Your task to perform on an android device: search for starred emails in the gmail app Image 0: 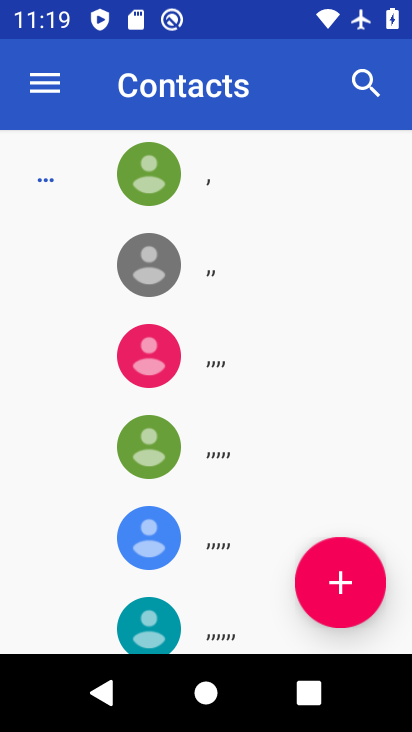
Step 0: press home button
Your task to perform on an android device: search for starred emails in the gmail app Image 1: 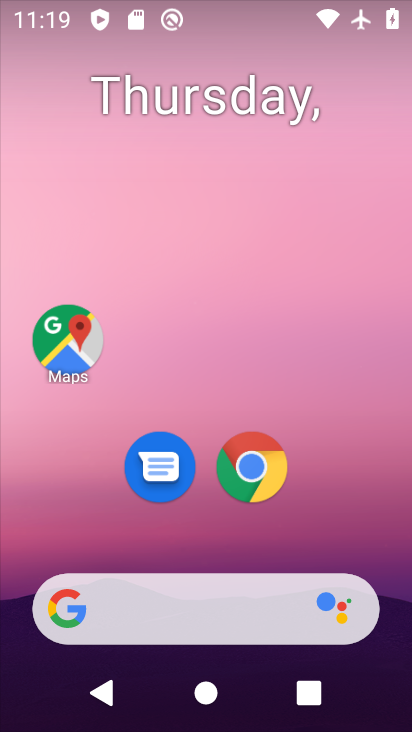
Step 1: drag from (353, 569) to (384, 4)
Your task to perform on an android device: search for starred emails in the gmail app Image 2: 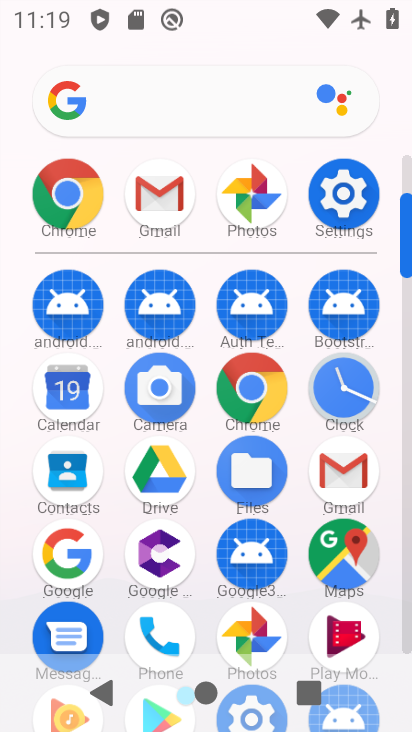
Step 2: click (162, 200)
Your task to perform on an android device: search for starred emails in the gmail app Image 3: 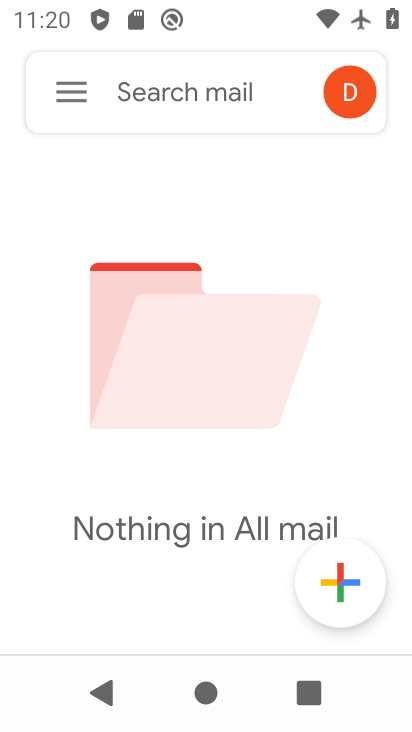
Step 3: click (64, 85)
Your task to perform on an android device: search for starred emails in the gmail app Image 4: 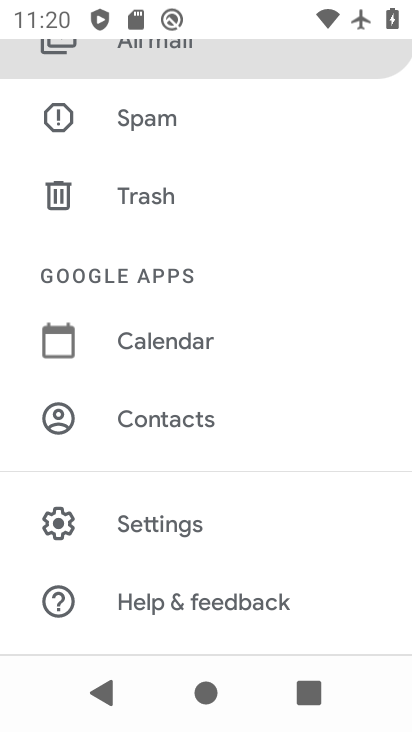
Step 4: drag from (207, 168) to (226, 502)
Your task to perform on an android device: search for starred emails in the gmail app Image 5: 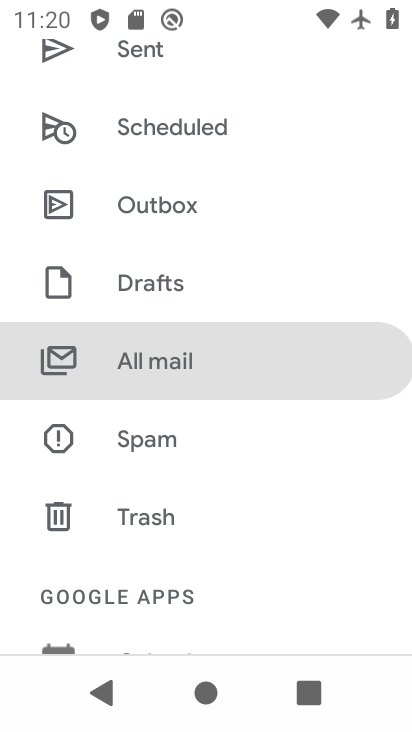
Step 5: drag from (176, 201) to (180, 507)
Your task to perform on an android device: search for starred emails in the gmail app Image 6: 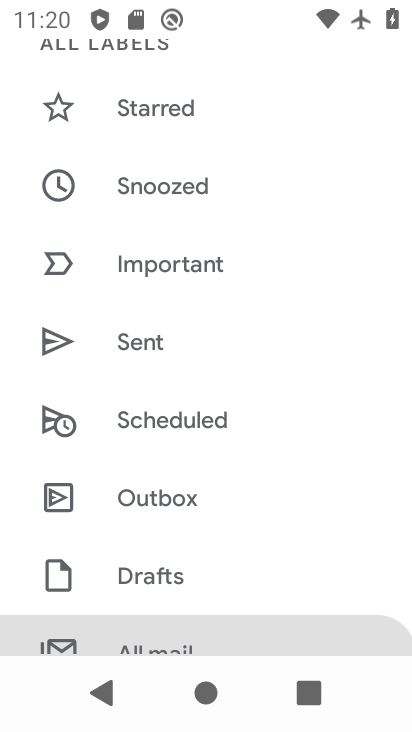
Step 6: click (141, 112)
Your task to perform on an android device: search for starred emails in the gmail app Image 7: 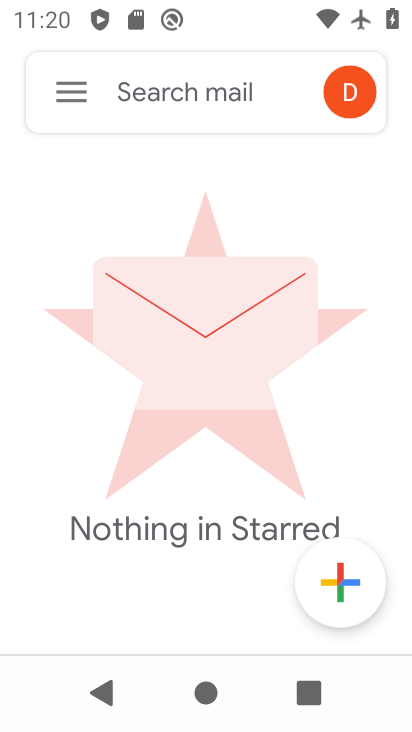
Step 7: task complete